Your task to perform on an android device: move an email to a new category in the gmail app Image 0: 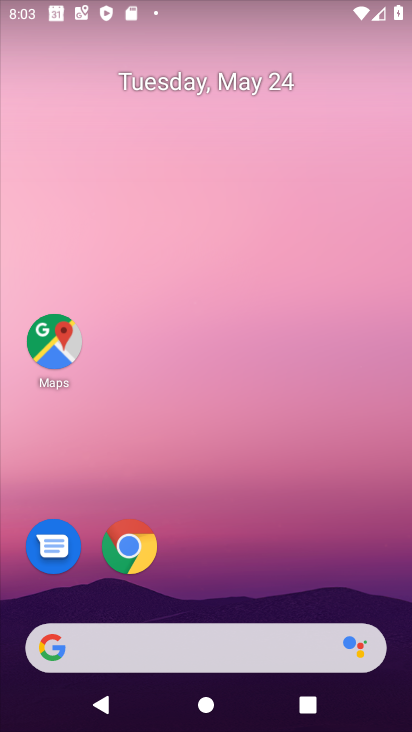
Step 0: drag from (277, 551) to (284, 1)
Your task to perform on an android device: move an email to a new category in the gmail app Image 1: 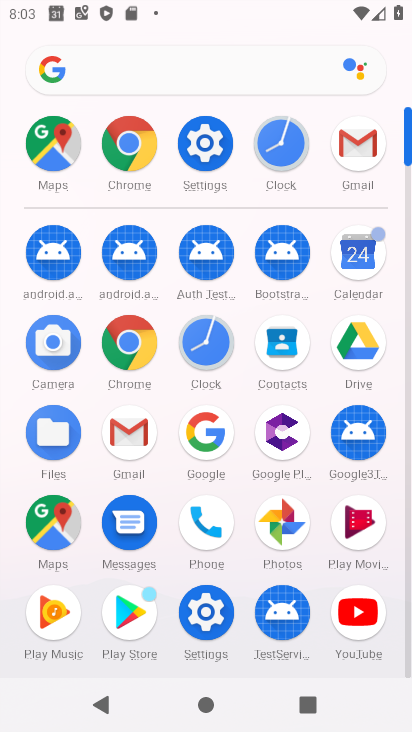
Step 1: click (352, 143)
Your task to perform on an android device: move an email to a new category in the gmail app Image 2: 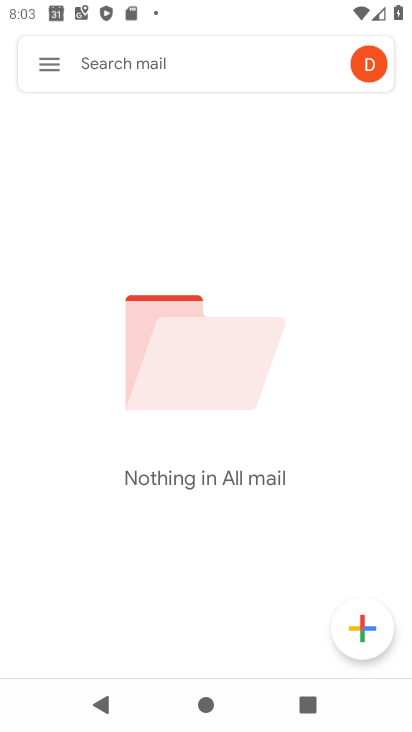
Step 2: task complete